Your task to perform on an android device: Find coffee shops on Maps Image 0: 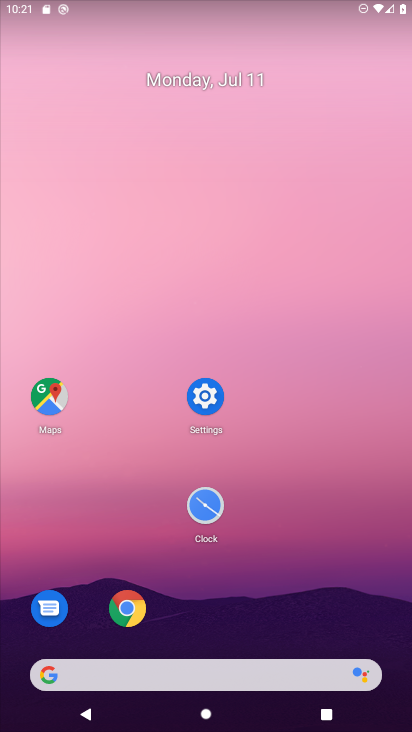
Step 0: click (61, 393)
Your task to perform on an android device: Find coffee shops on Maps Image 1: 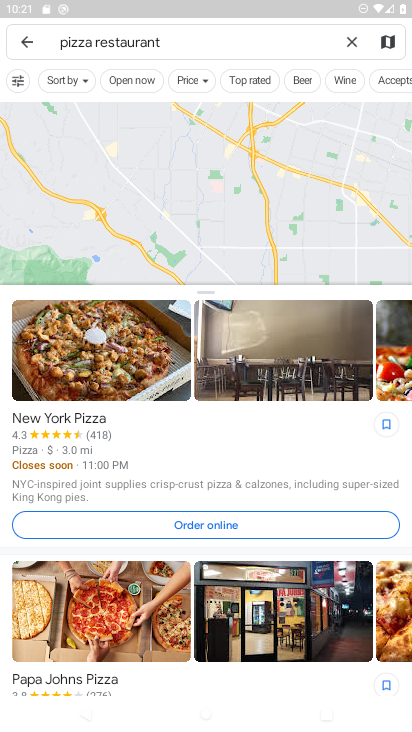
Step 1: click (348, 37)
Your task to perform on an android device: Find coffee shops on Maps Image 2: 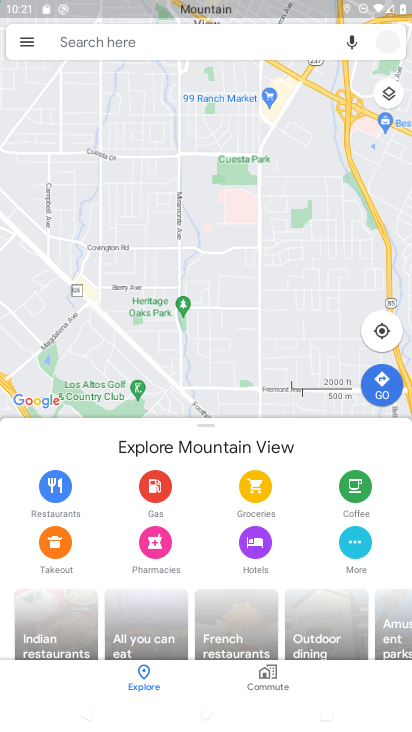
Step 2: type "coffee shops"
Your task to perform on an android device: Find coffee shops on Maps Image 3: 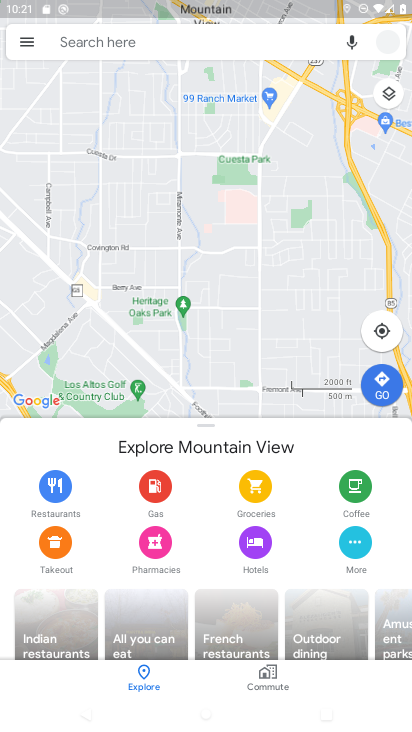
Step 3: click (67, 44)
Your task to perform on an android device: Find coffee shops on Maps Image 4: 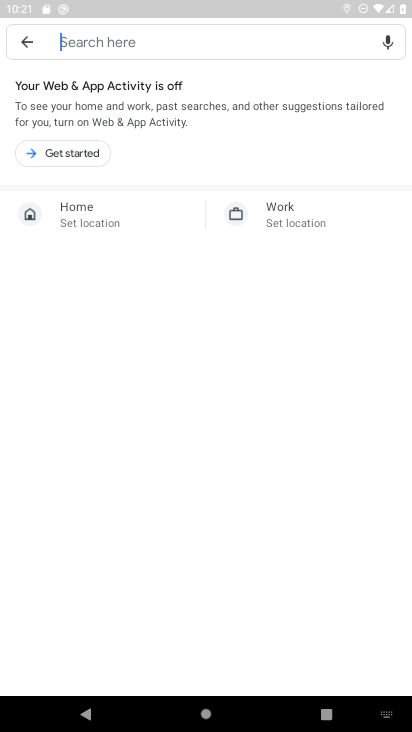
Step 4: type "coffee shops"
Your task to perform on an android device: Find coffee shops on Maps Image 5: 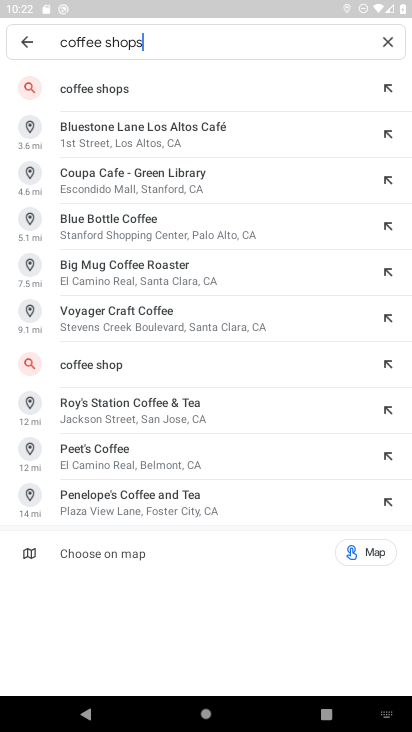
Step 5: click (77, 80)
Your task to perform on an android device: Find coffee shops on Maps Image 6: 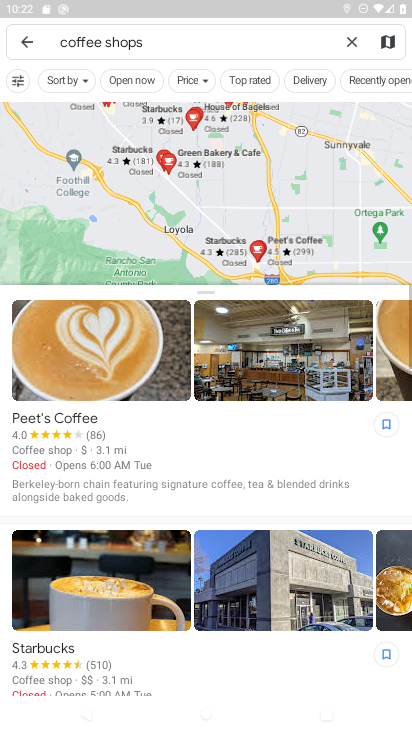
Step 6: task complete